Your task to perform on an android device: Check the weather Image 0: 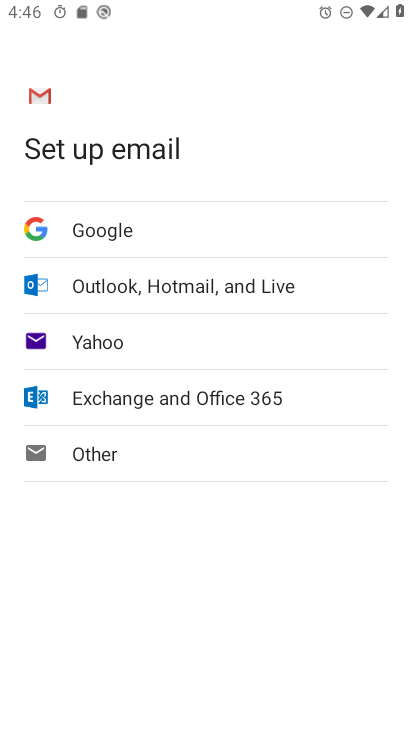
Step 0: press home button
Your task to perform on an android device: Check the weather Image 1: 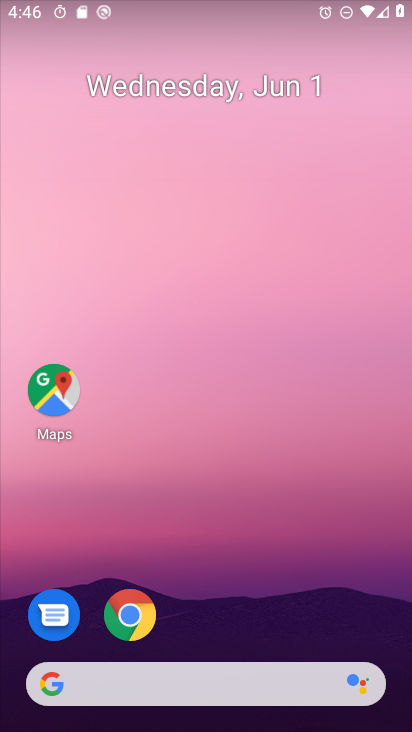
Step 1: drag from (249, 603) to (251, 236)
Your task to perform on an android device: Check the weather Image 2: 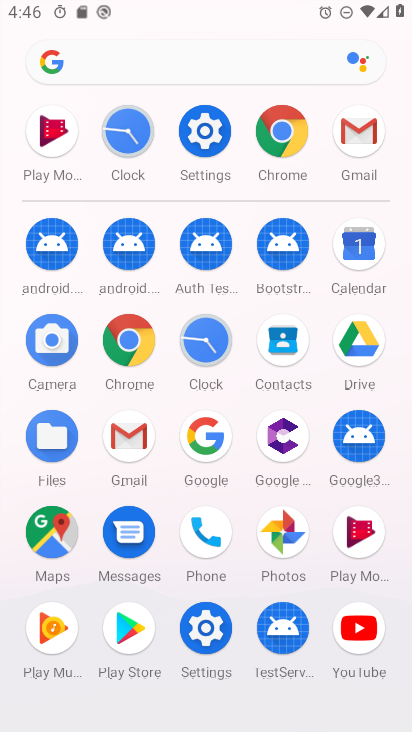
Step 2: click (298, 131)
Your task to perform on an android device: Check the weather Image 3: 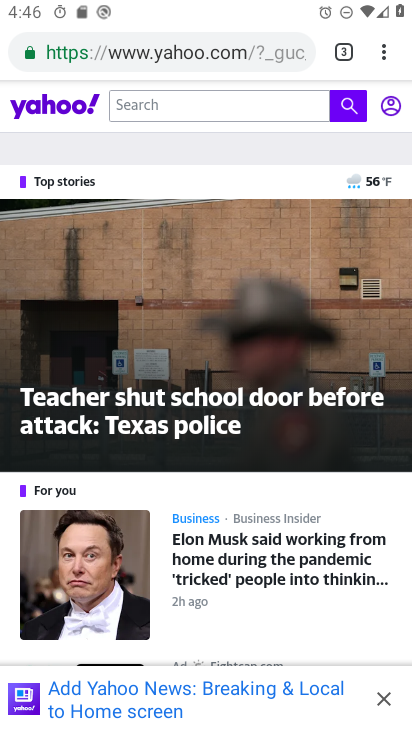
Step 3: click (289, 61)
Your task to perform on an android device: Check the weather Image 4: 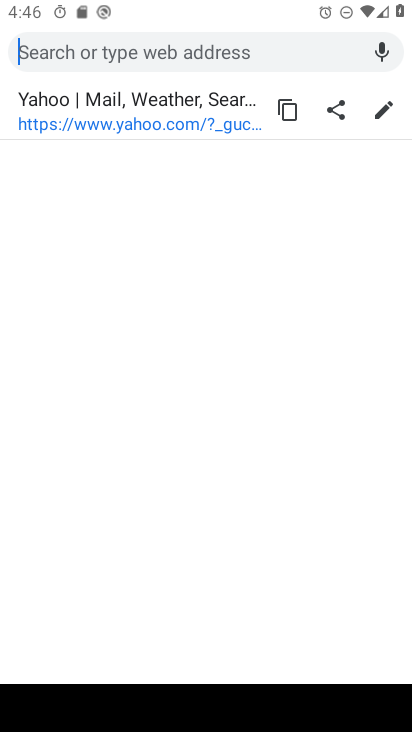
Step 4: type "check the weather"
Your task to perform on an android device: Check the weather Image 5: 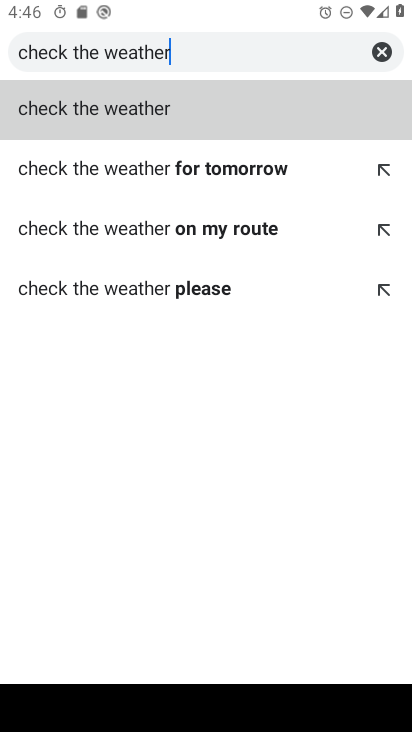
Step 5: click (276, 111)
Your task to perform on an android device: Check the weather Image 6: 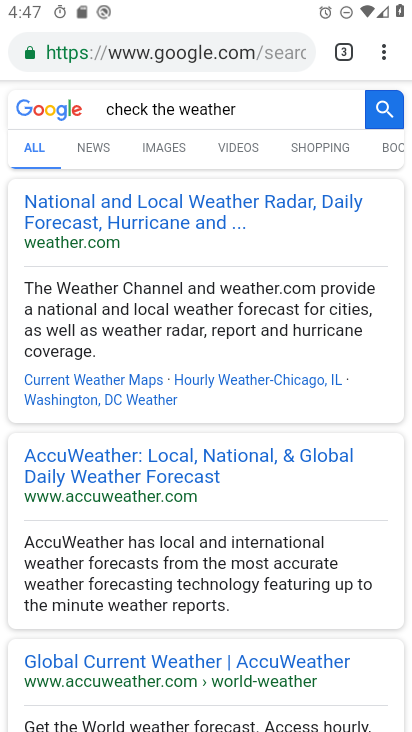
Step 6: click (183, 211)
Your task to perform on an android device: Check the weather Image 7: 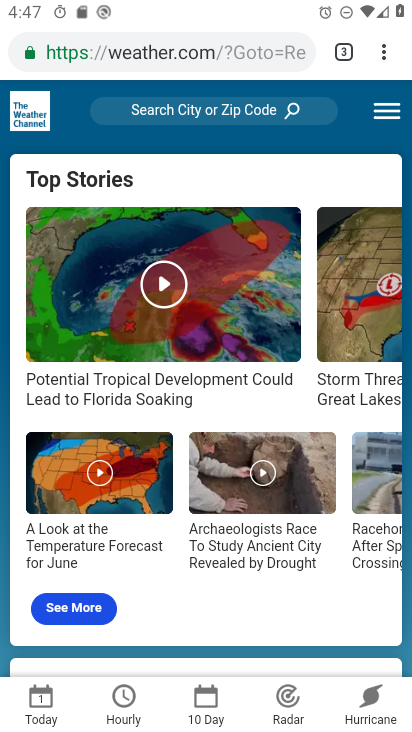
Step 7: task complete